Your task to perform on an android device: Go to Google Image 0: 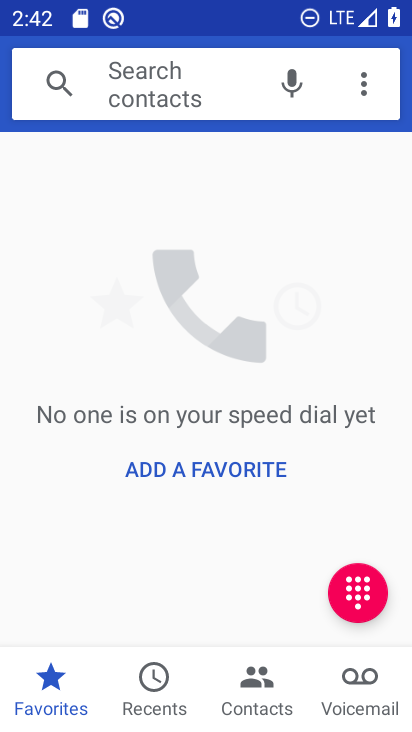
Step 0: press home button
Your task to perform on an android device: Go to Google Image 1: 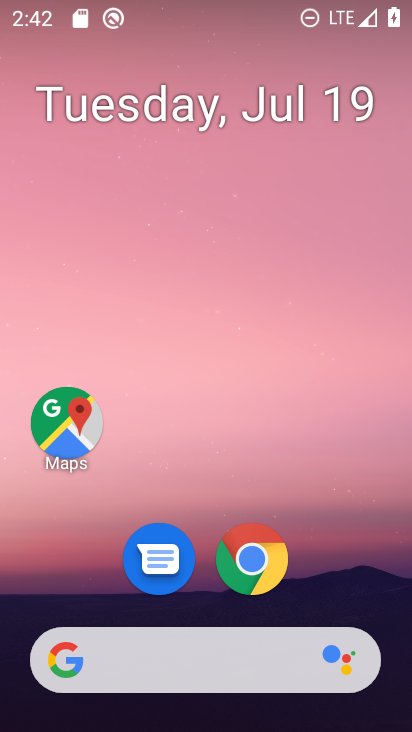
Step 1: drag from (245, 637) to (265, 205)
Your task to perform on an android device: Go to Google Image 2: 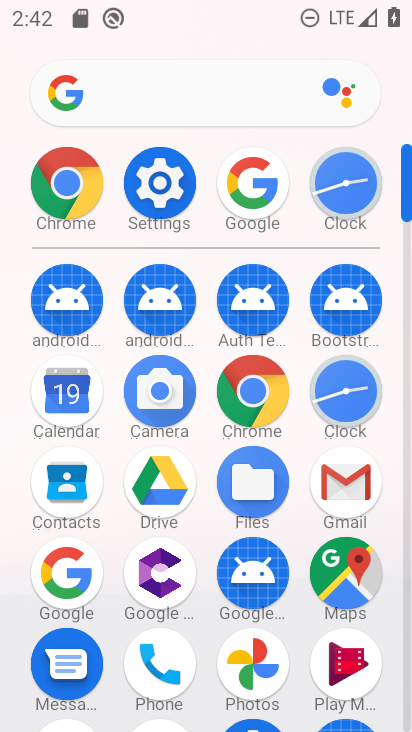
Step 2: click (91, 565)
Your task to perform on an android device: Go to Google Image 3: 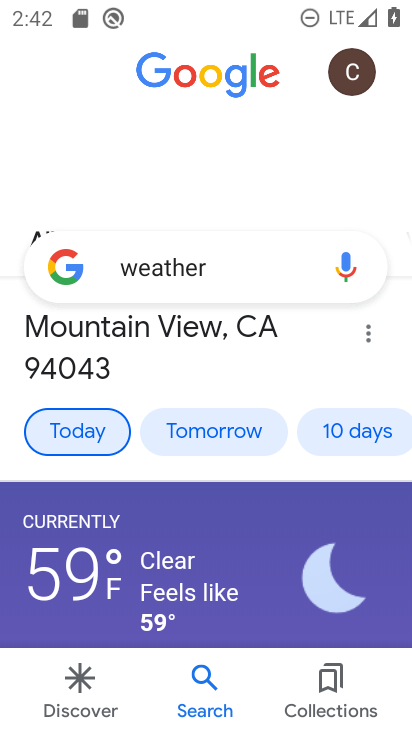
Step 3: task complete